Your task to perform on an android device: delete browsing data in the chrome app Image 0: 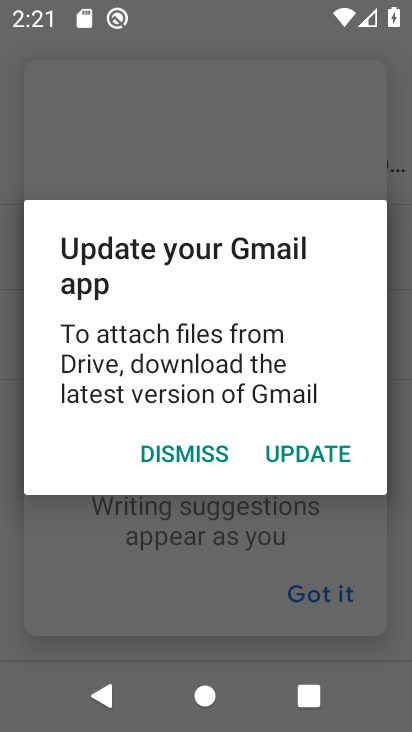
Step 0: press home button
Your task to perform on an android device: delete browsing data in the chrome app Image 1: 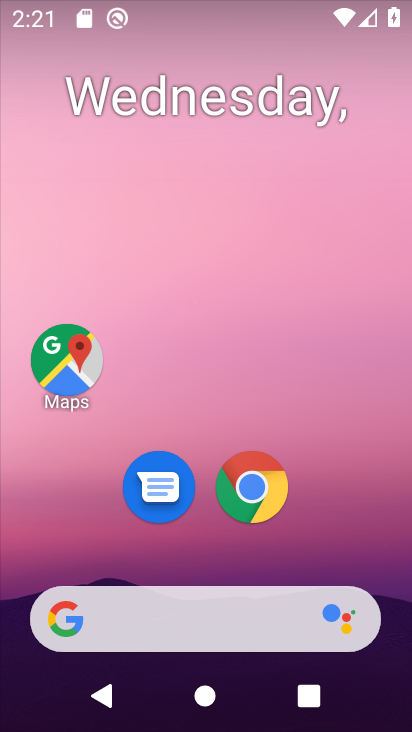
Step 1: click (244, 507)
Your task to perform on an android device: delete browsing data in the chrome app Image 2: 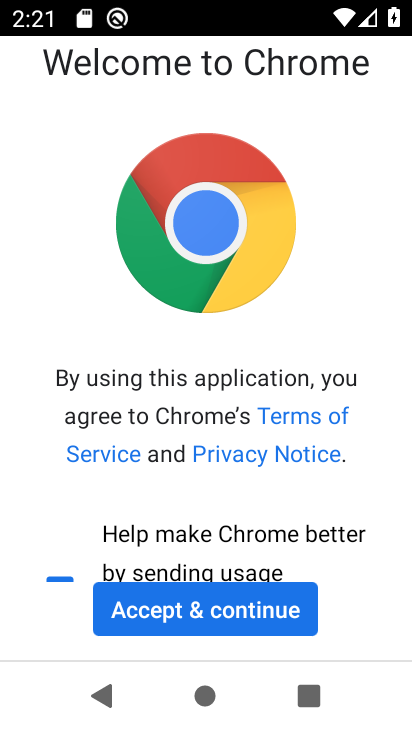
Step 2: click (236, 602)
Your task to perform on an android device: delete browsing data in the chrome app Image 3: 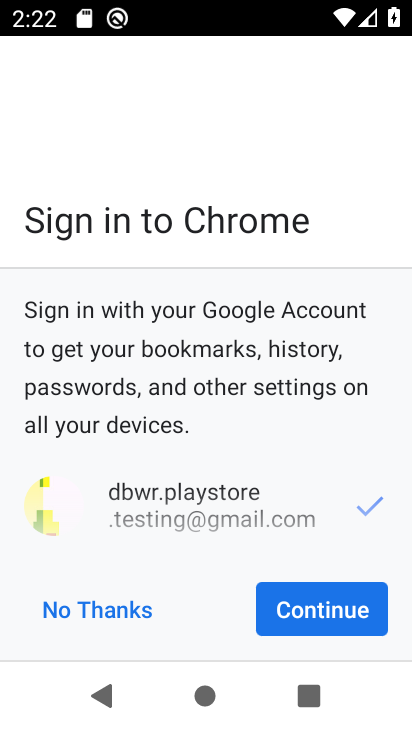
Step 3: click (311, 615)
Your task to perform on an android device: delete browsing data in the chrome app Image 4: 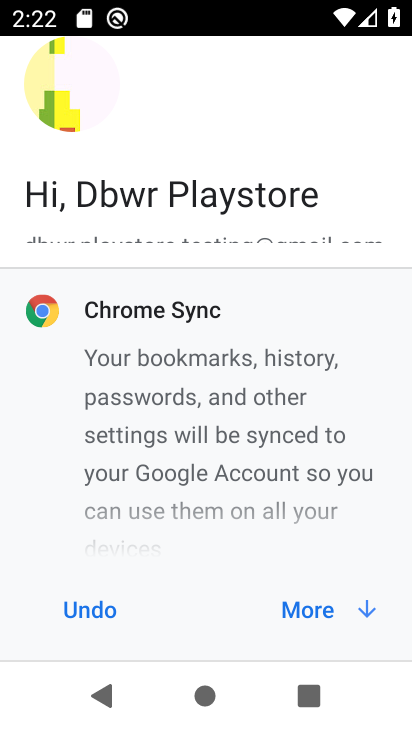
Step 4: click (311, 615)
Your task to perform on an android device: delete browsing data in the chrome app Image 5: 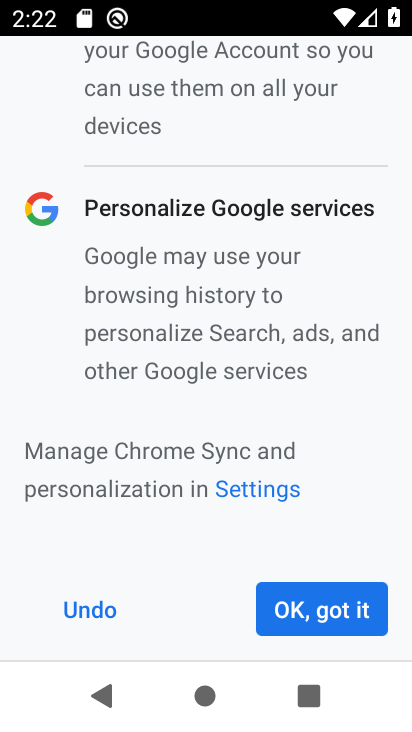
Step 5: click (311, 615)
Your task to perform on an android device: delete browsing data in the chrome app Image 6: 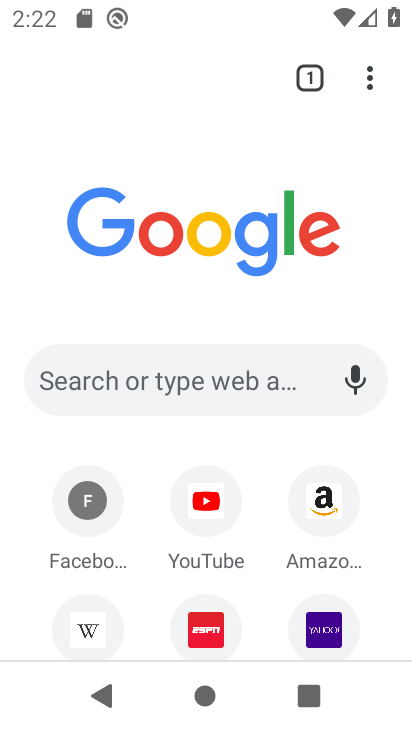
Step 6: click (366, 80)
Your task to perform on an android device: delete browsing data in the chrome app Image 7: 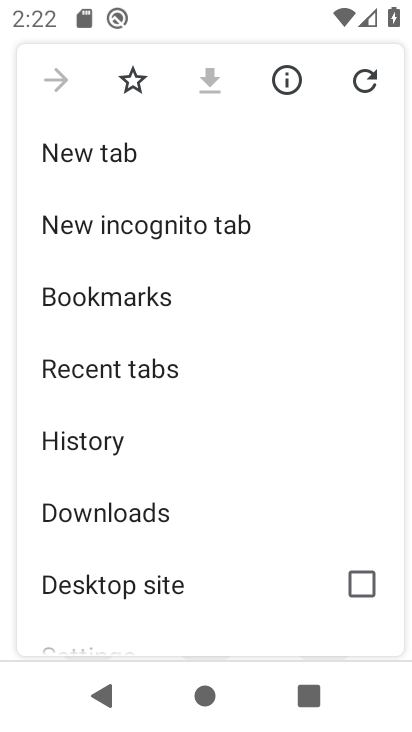
Step 7: click (136, 452)
Your task to perform on an android device: delete browsing data in the chrome app Image 8: 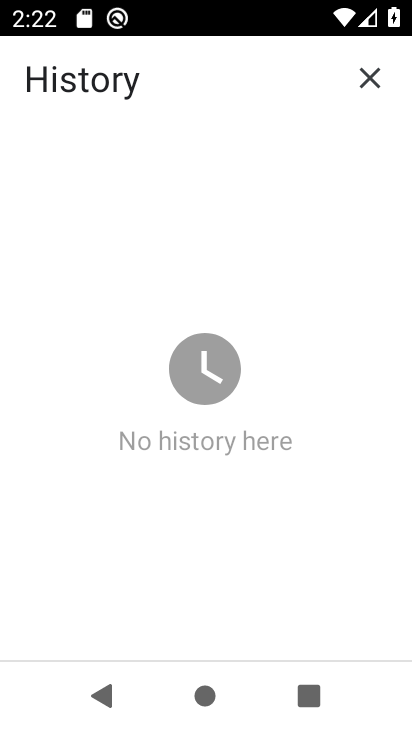
Step 8: task complete